Your task to perform on an android device: visit the assistant section in the google photos Image 0: 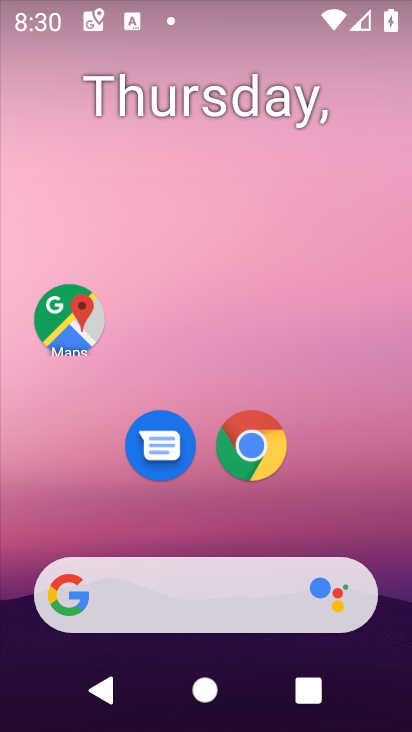
Step 0: drag from (14, 643) to (238, 209)
Your task to perform on an android device: visit the assistant section in the google photos Image 1: 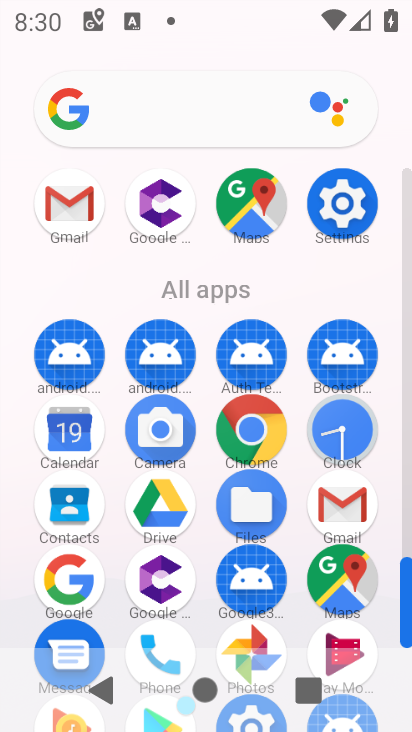
Step 1: click (238, 634)
Your task to perform on an android device: visit the assistant section in the google photos Image 2: 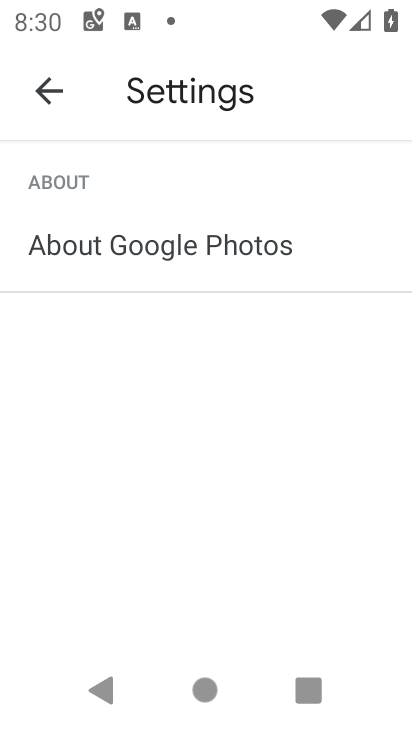
Step 2: click (49, 91)
Your task to perform on an android device: visit the assistant section in the google photos Image 3: 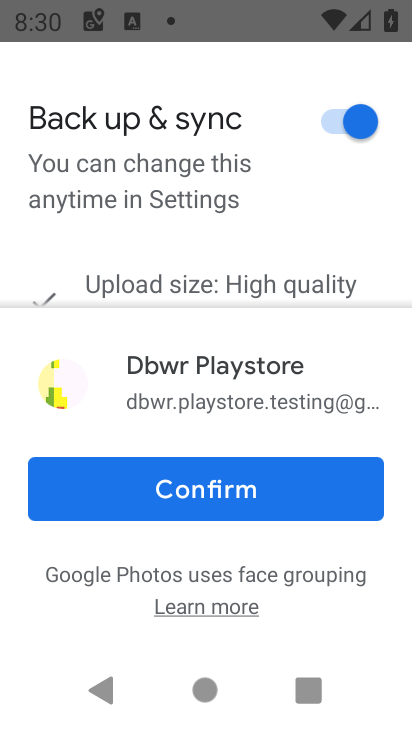
Step 3: click (228, 505)
Your task to perform on an android device: visit the assistant section in the google photos Image 4: 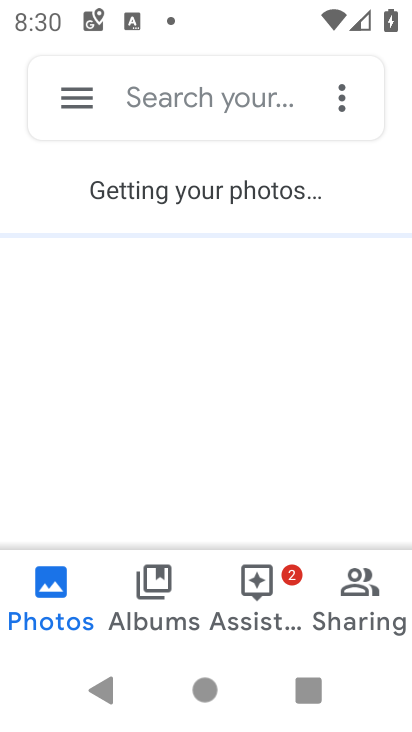
Step 4: click (242, 581)
Your task to perform on an android device: visit the assistant section in the google photos Image 5: 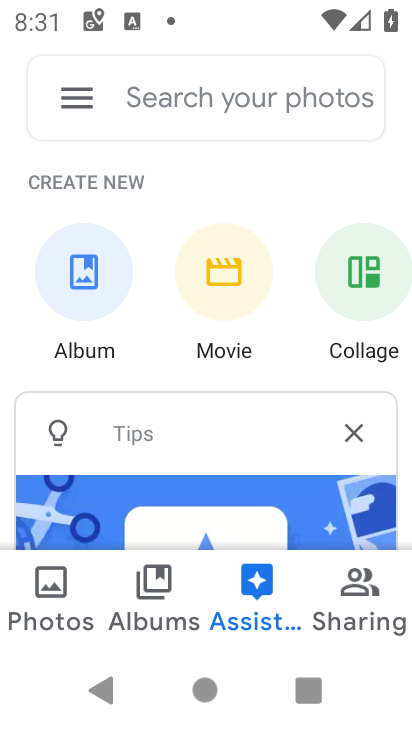
Step 5: task complete